Your task to perform on an android device: Go to settings Image 0: 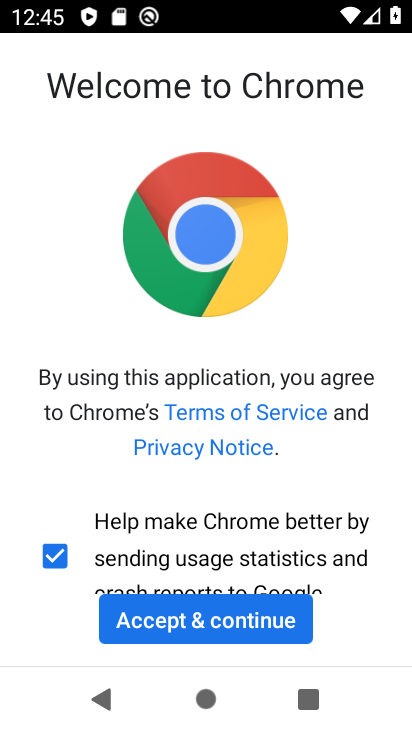
Step 0: press home button
Your task to perform on an android device: Go to settings Image 1: 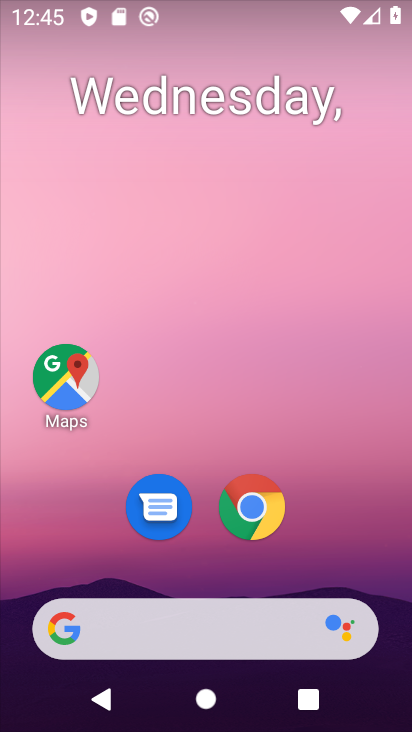
Step 1: drag from (394, 357) to (409, 65)
Your task to perform on an android device: Go to settings Image 2: 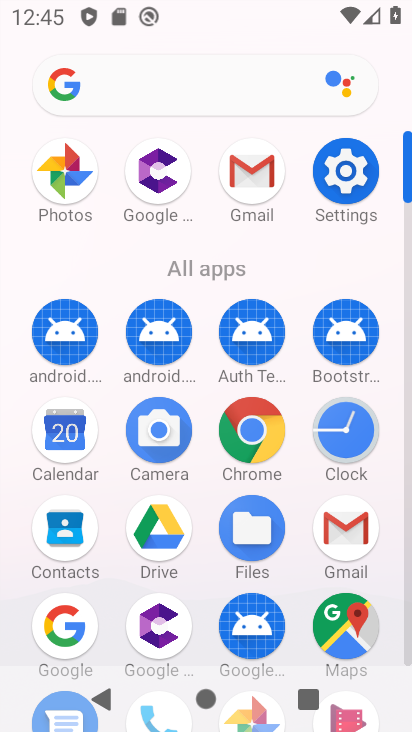
Step 2: click (366, 177)
Your task to perform on an android device: Go to settings Image 3: 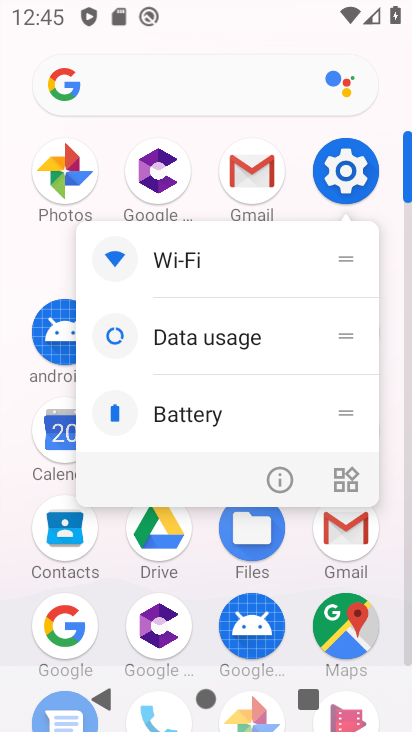
Step 3: click (350, 169)
Your task to perform on an android device: Go to settings Image 4: 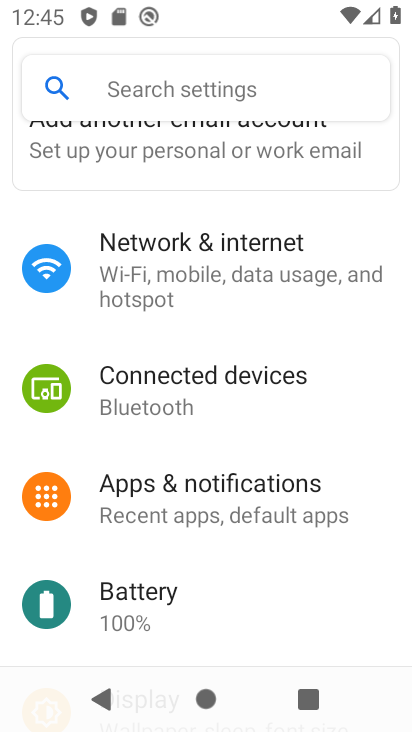
Step 4: task complete